Your task to perform on an android device: Show me recent news Image 0: 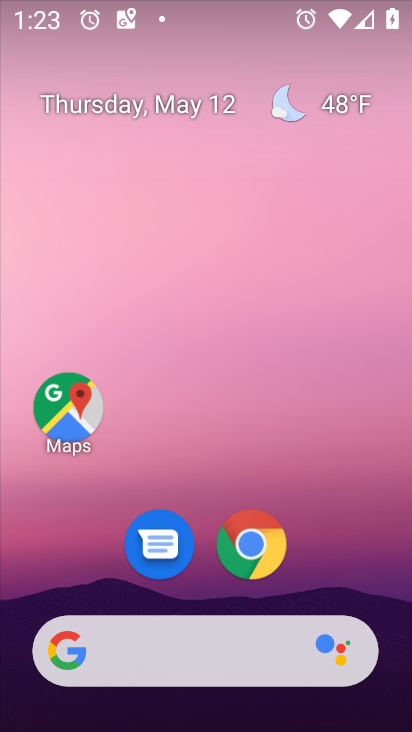
Step 0: drag from (296, 437) to (289, 92)
Your task to perform on an android device: Show me recent news Image 1: 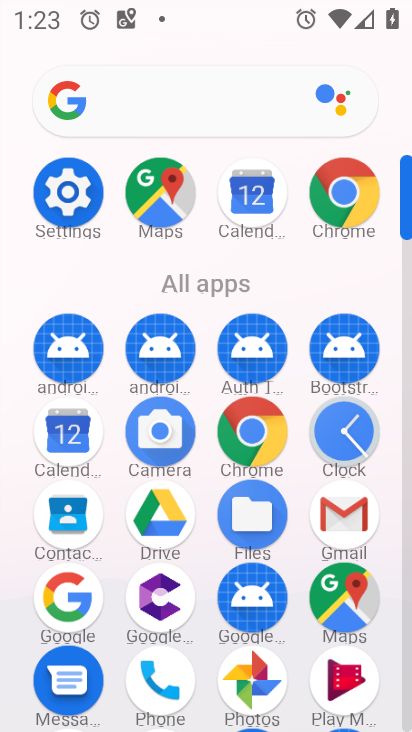
Step 1: drag from (28, 528) to (25, 241)
Your task to perform on an android device: Show me recent news Image 2: 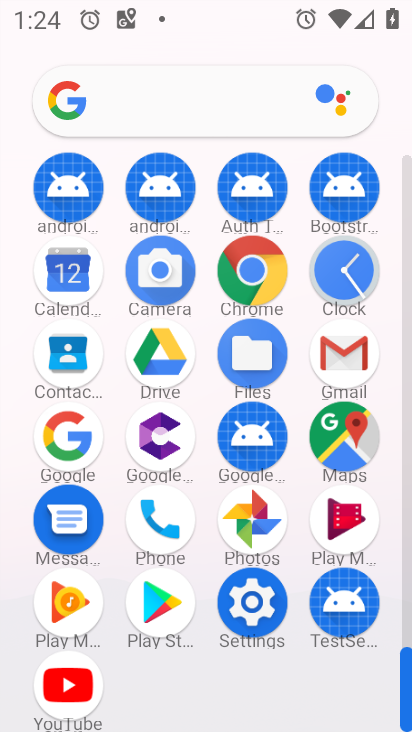
Step 2: click (251, 272)
Your task to perform on an android device: Show me recent news Image 3: 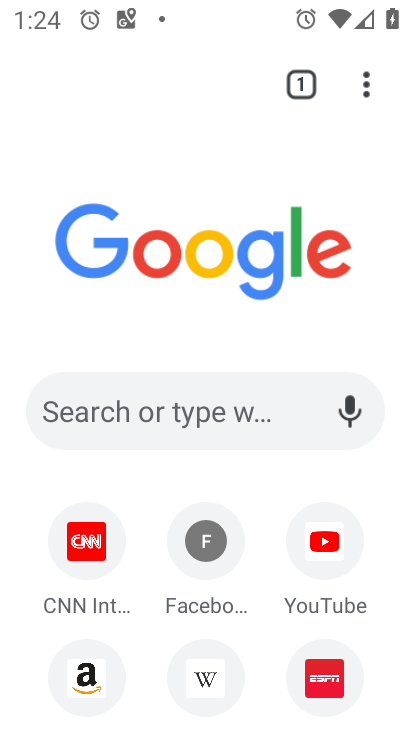
Step 3: click (146, 409)
Your task to perform on an android device: Show me recent news Image 4: 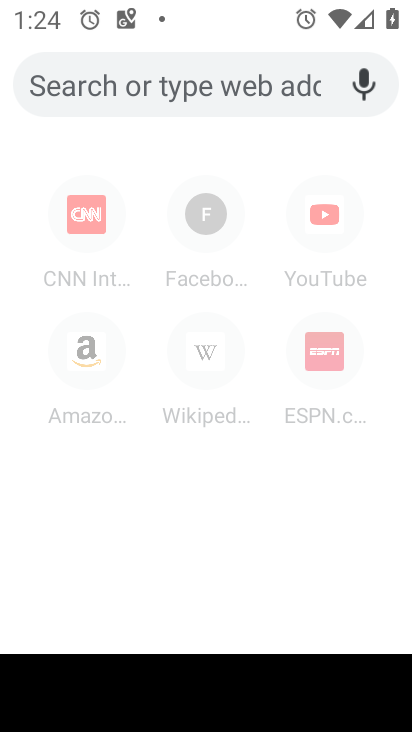
Step 4: type "Show me recent news"
Your task to perform on an android device: Show me recent news Image 5: 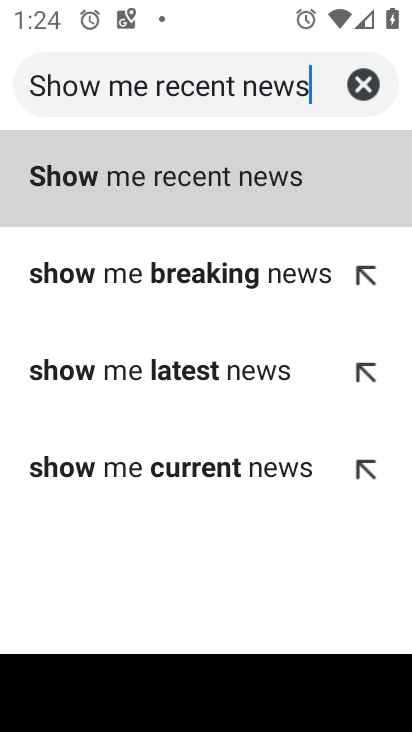
Step 5: click (151, 180)
Your task to perform on an android device: Show me recent news Image 6: 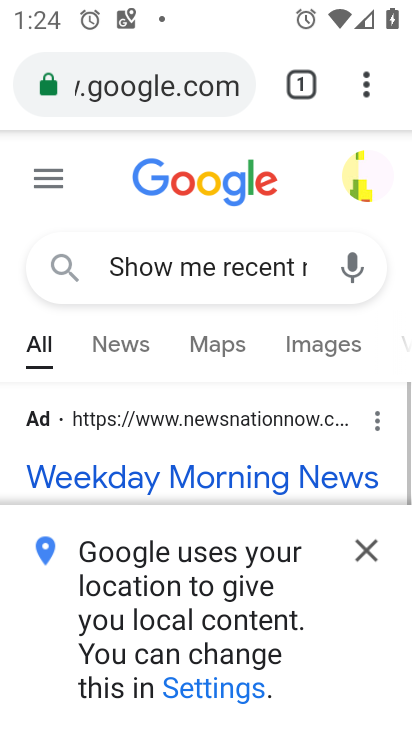
Step 6: click (366, 555)
Your task to perform on an android device: Show me recent news Image 7: 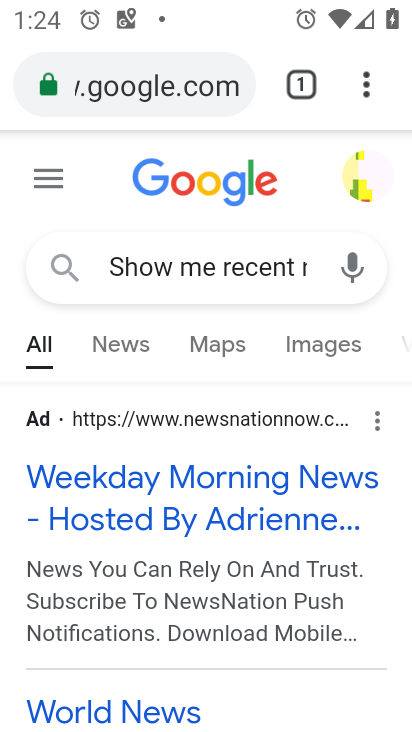
Step 7: click (130, 349)
Your task to perform on an android device: Show me recent news Image 8: 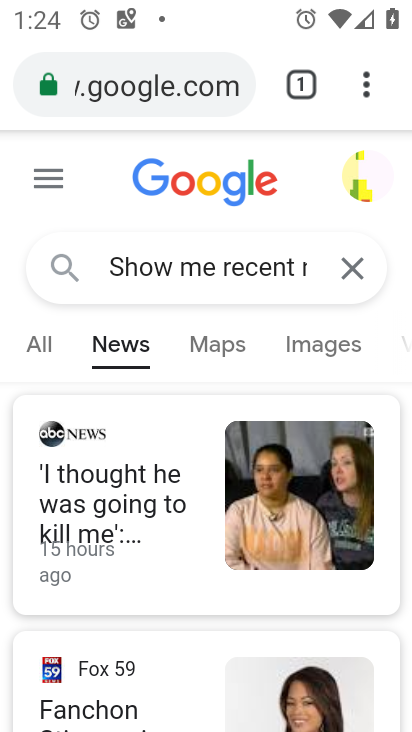
Step 8: task complete